Your task to perform on an android device: turn off smart reply in the gmail app Image 0: 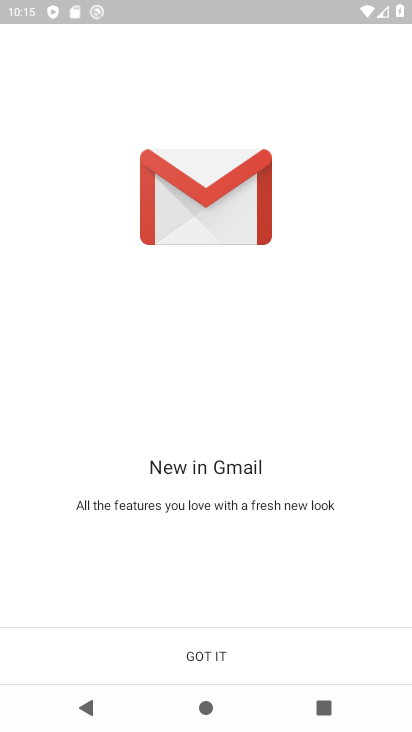
Step 0: click (239, 652)
Your task to perform on an android device: turn off smart reply in the gmail app Image 1: 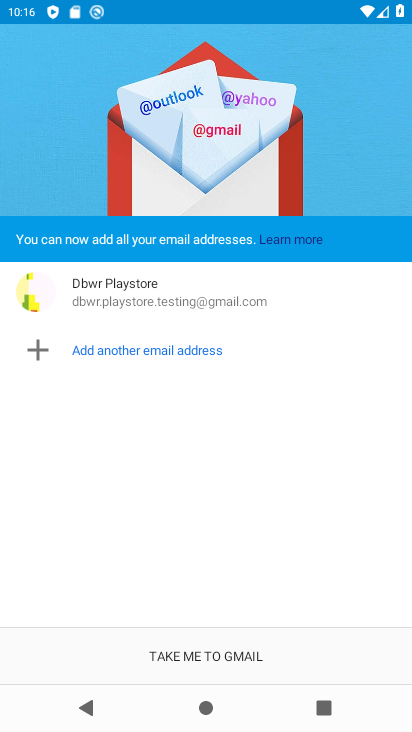
Step 1: click (225, 663)
Your task to perform on an android device: turn off smart reply in the gmail app Image 2: 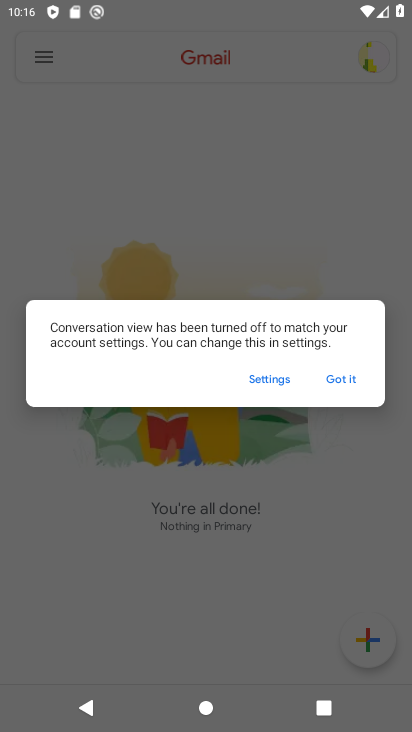
Step 2: click (335, 372)
Your task to perform on an android device: turn off smart reply in the gmail app Image 3: 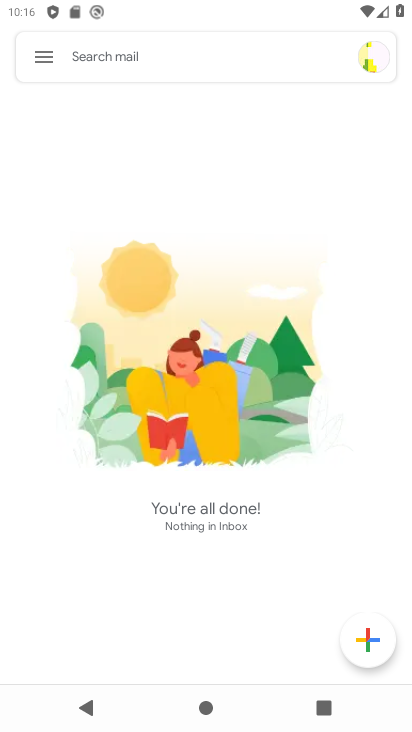
Step 3: click (45, 56)
Your task to perform on an android device: turn off smart reply in the gmail app Image 4: 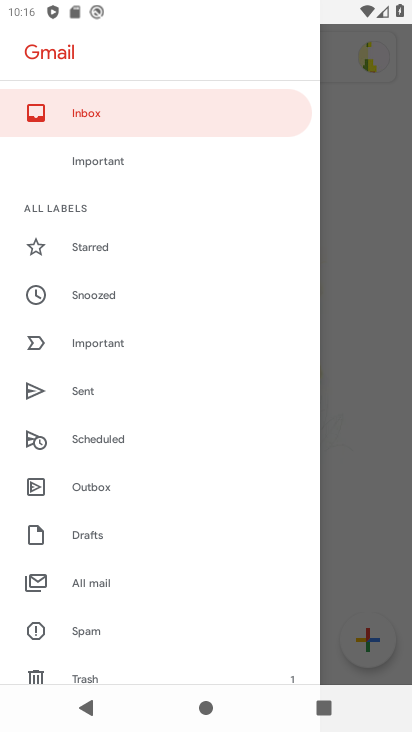
Step 4: drag from (150, 558) to (149, 239)
Your task to perform on an android device: turn off smart reply in the gmail app Image 5: 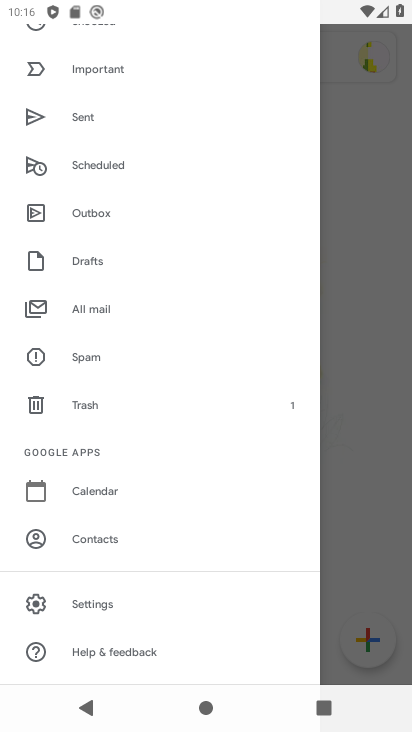
Step 5: click (116, 595)
Your task to perform on an android device: turn off smart reply in the gmail app Image 6: 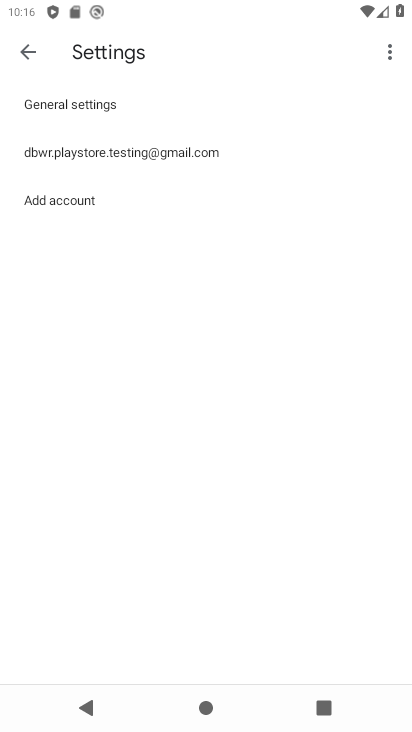
Step 6: click (80, 148)
Your task to perform on an android device: turn off smart reply in the gmail app Image 7: 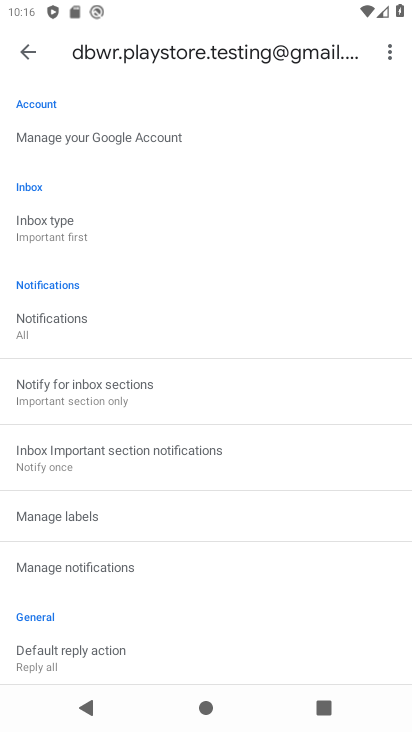
Step 7: drag from (177, 453) to (134, 76)
Your task to perform on an android device: turn off smart reply in the gmail app Image 8: 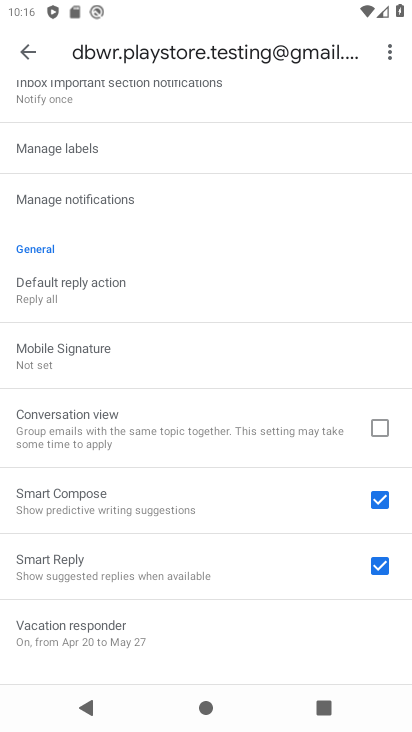
Step 8: click (378, 564)
Your task to perform on an android device: turn off smart reply in the gmail app Image 9: 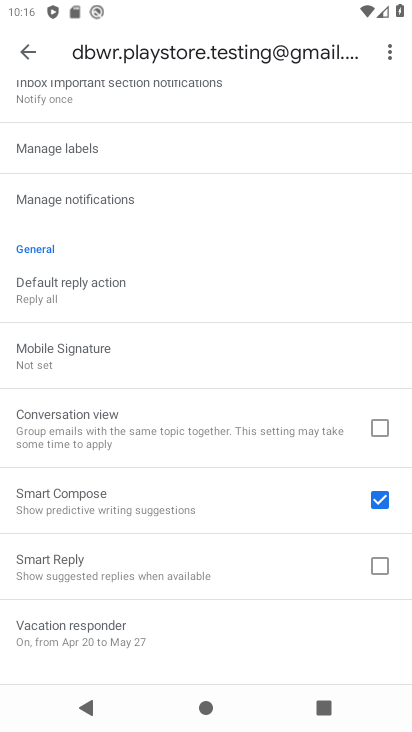
Step 9: task complete